Your task to perform on an android device: toggle airplane mode Image 0: 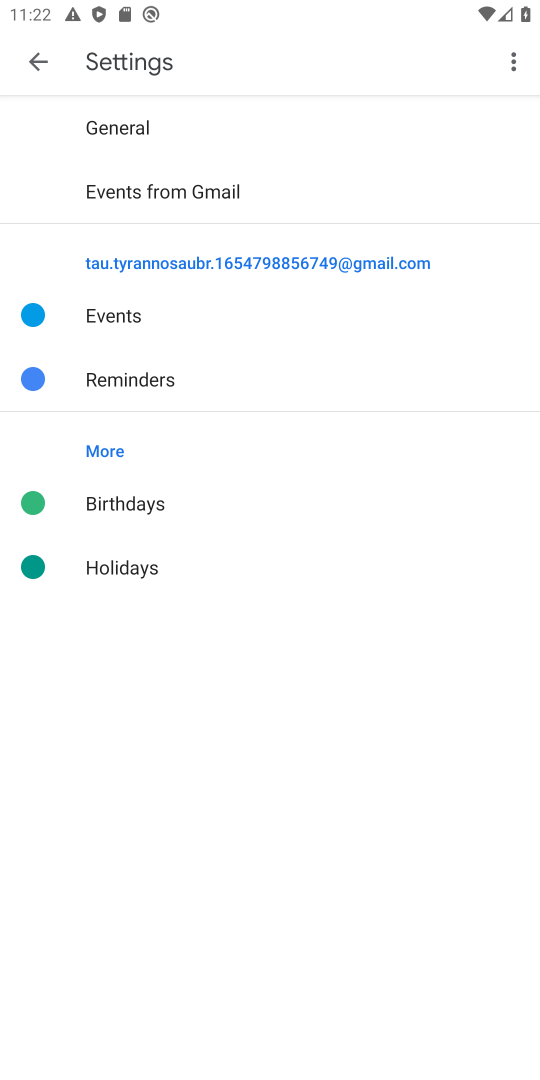
Step 0: press home button
Your task to perform on an android device: toggle airplane mode Image 1: 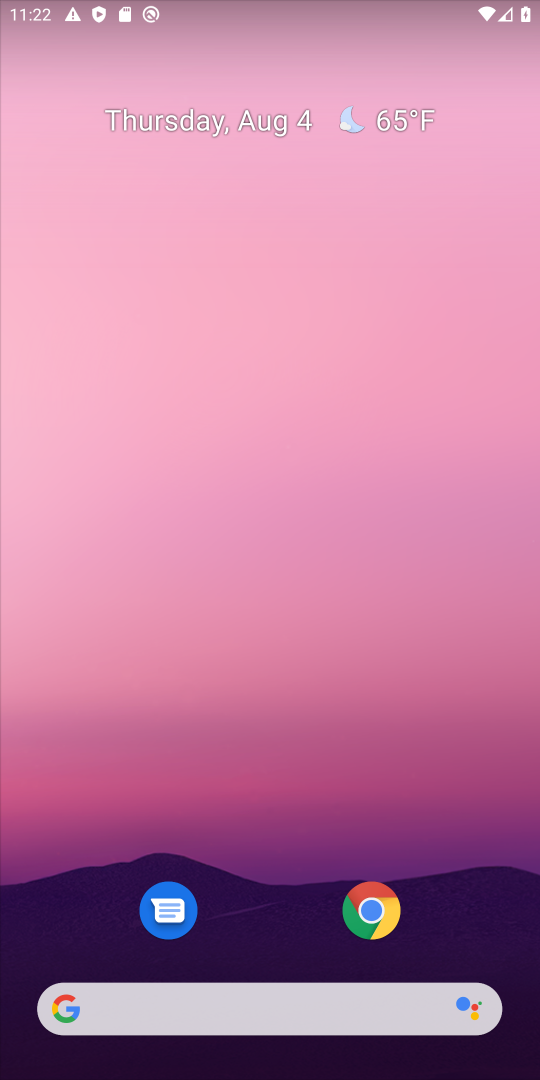
Step 1: drag from (180, 884) to (251, 221)
Your task to perform on an android device: toggle airplane mode Image 2: 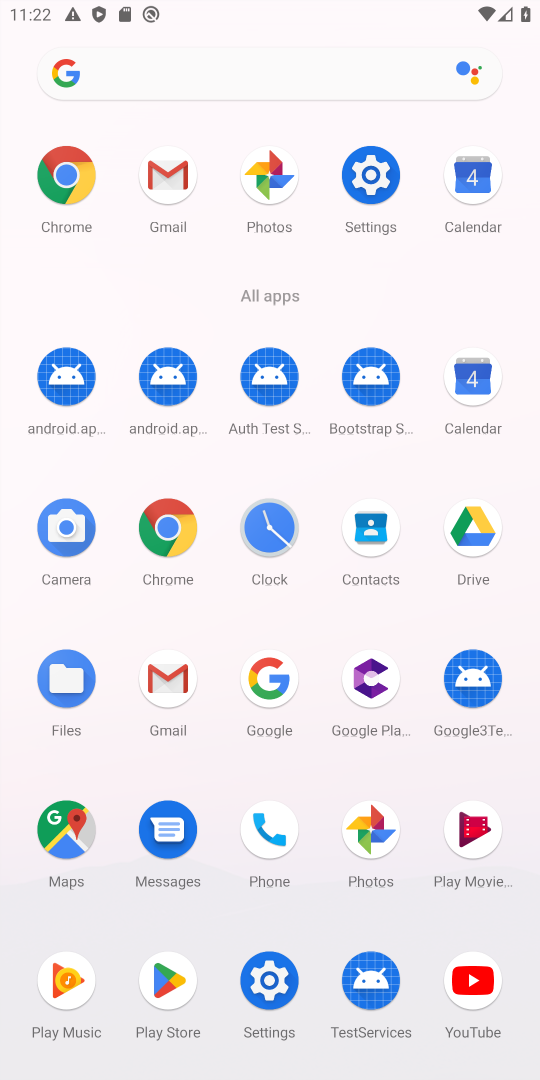
Step 2: click (369, 182)
Your task to perform on an android device: toggle airplane mode Image 3: 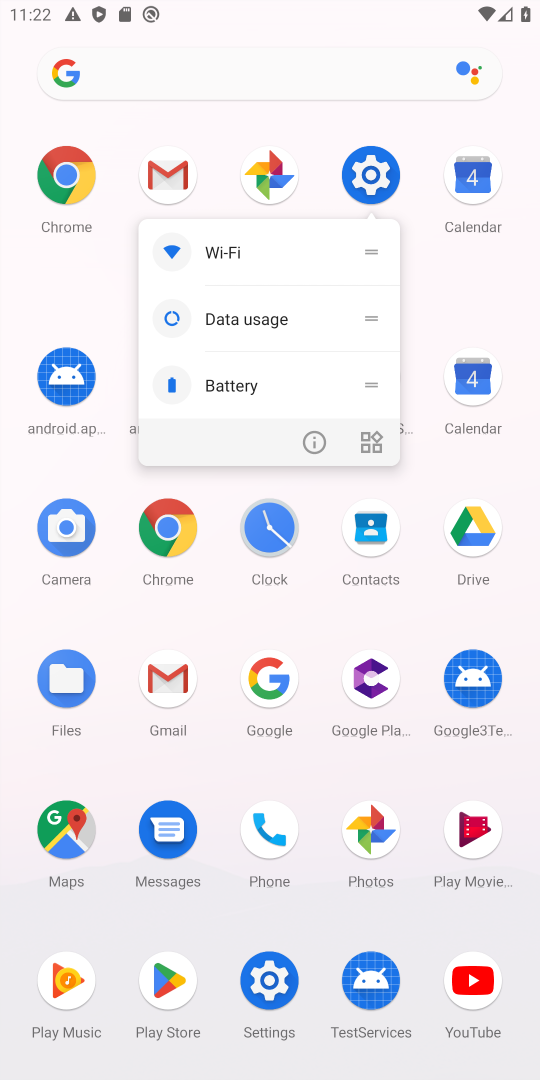
Step 3: click (369, 182)
Your task to perform on an android device: toggle airplane mode Image 4: 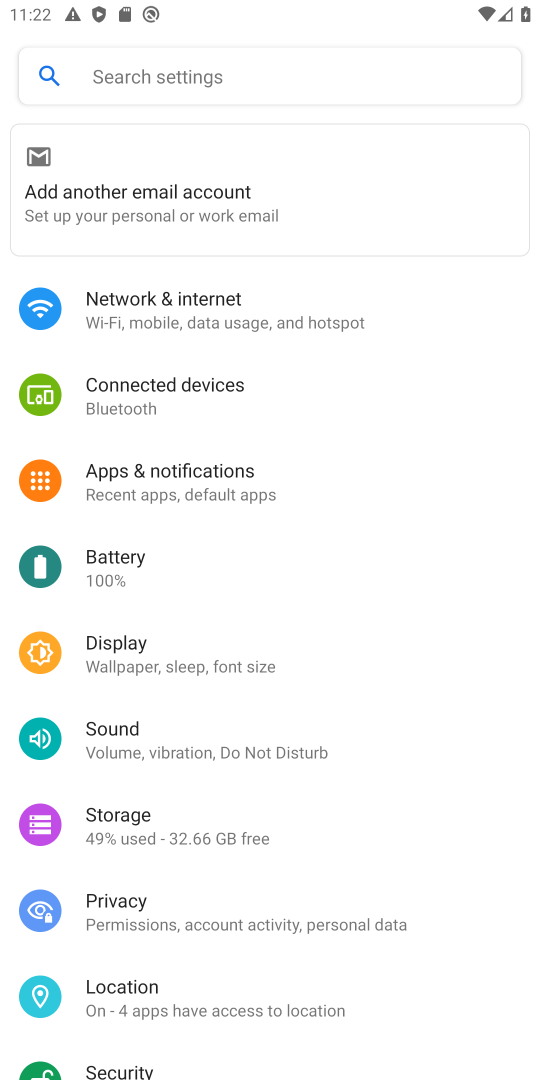
Step 4: click (174, 306)
Your task to perform on an android device: toggle airplane mode Image 5: 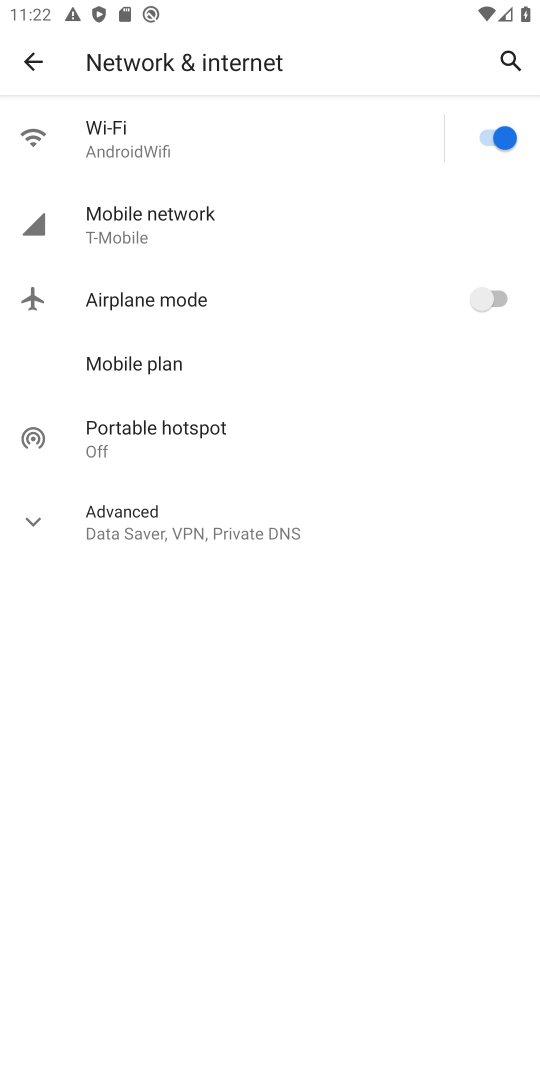
Step 5: click (118, 138)
Your task to perform on an android device: toggle airplane mode Image 6: 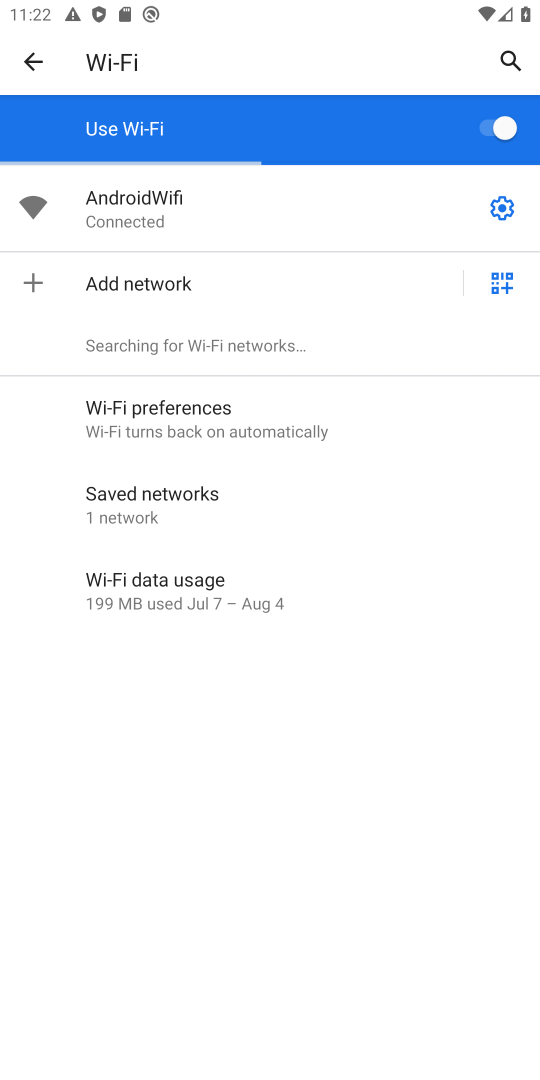
Step 6: click (28, 54)
Your task to perform on an android device: toggle airplane mode Image 7: 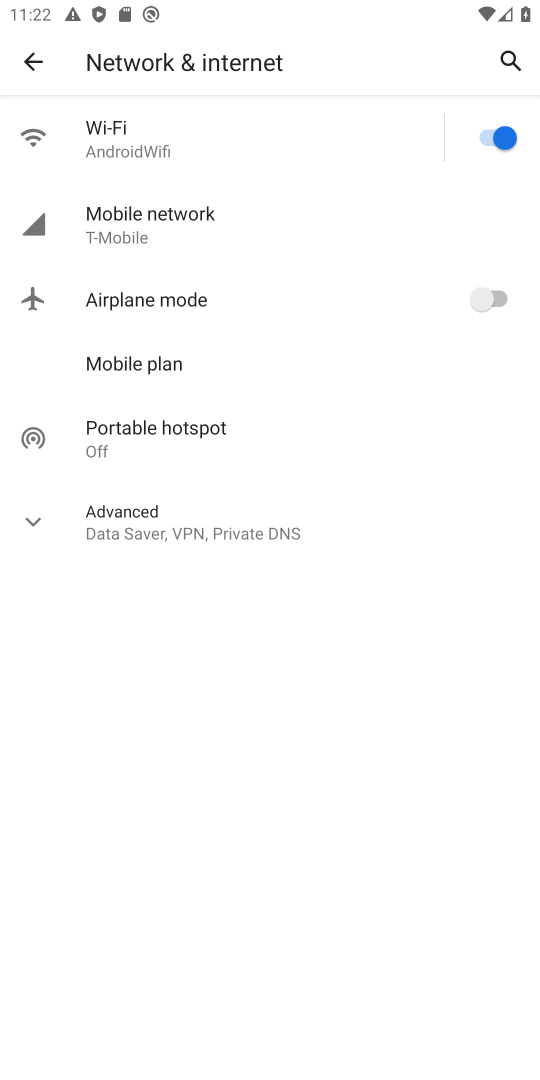
Step 7: click (482, 299)
Your task to perform on an android device: toggle airplane mode Image 8: 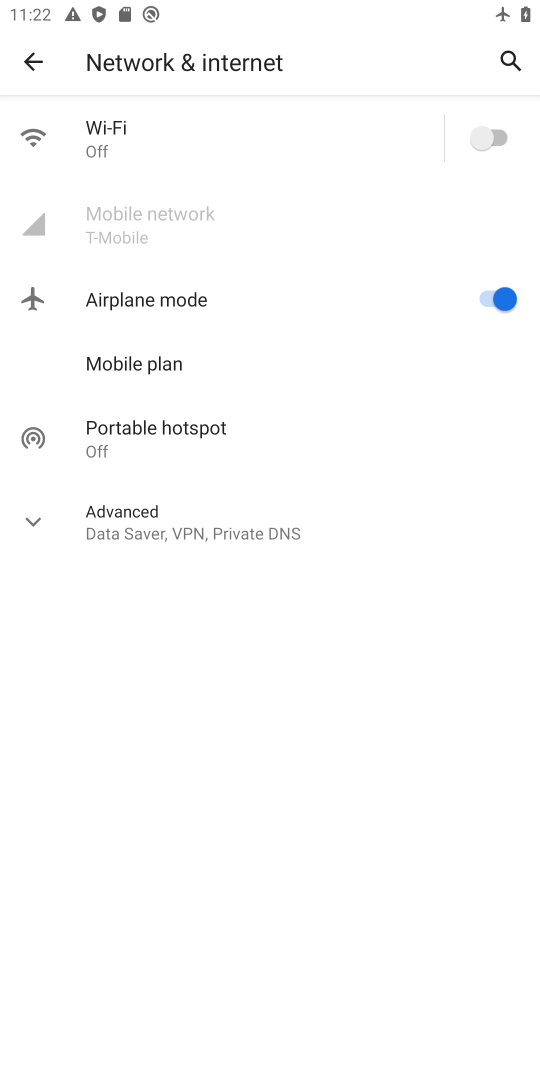
Step 8: task complete